Your task to perform on an android device: Is it going to rain this weekend? Image 0: 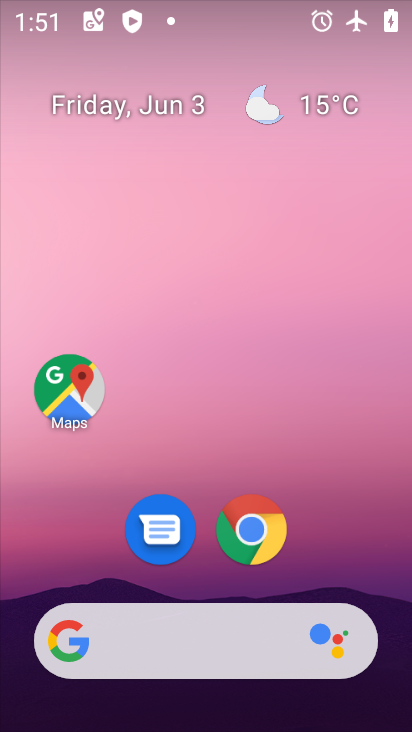
Step 0: click (308, 107)
Your task to perform on an android device: Is it going to rain this weekend? Image 1: 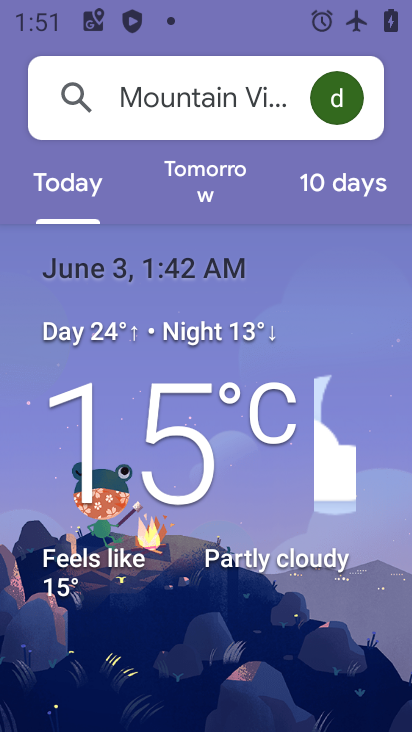
Step 1: click (361, 194)
Your task to perform on an android device: Is it going to rain this weekend? Image 2: 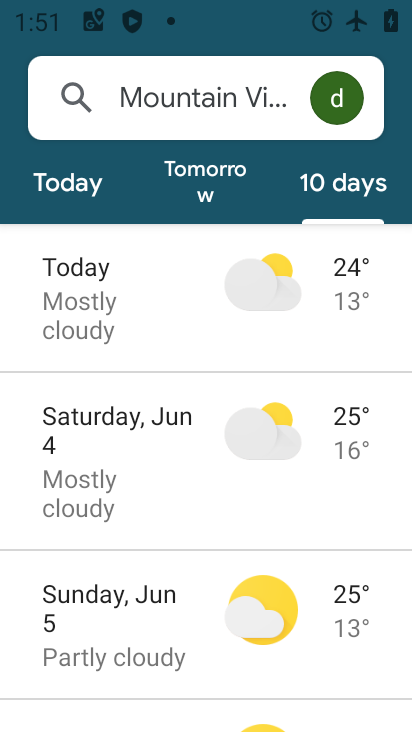
Step 2: click (163, 460)
Your task to perform on an android device: Is it going to rain this weekend? Image 3: 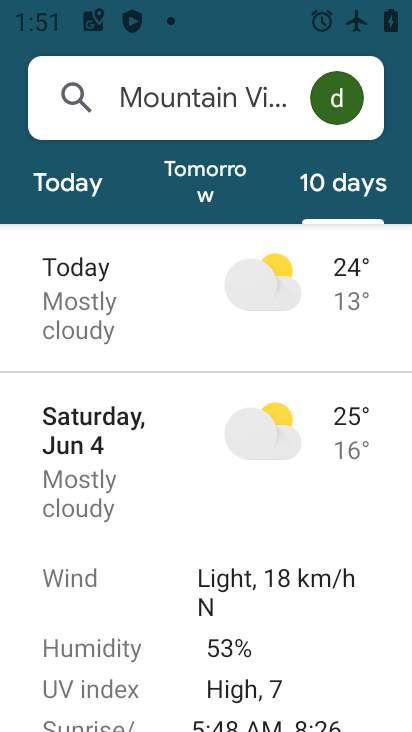
Step 3: task complete